Your task to perform on an android device: toggle location history Image 0: 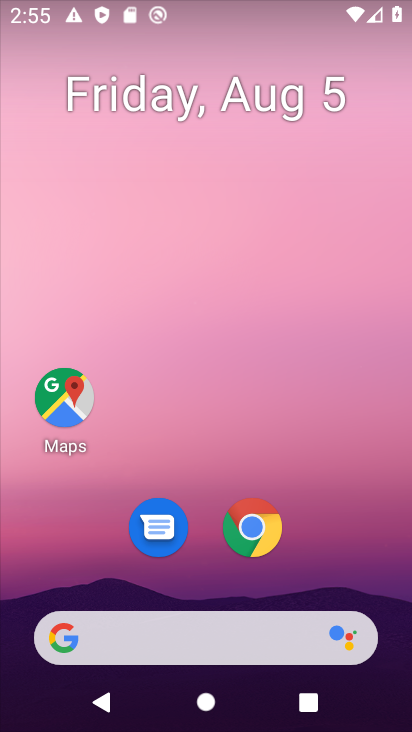
Step 0: drag from (207, 607) to (190, 119)
Your task to perform on an android device: toggle location history Image 1: 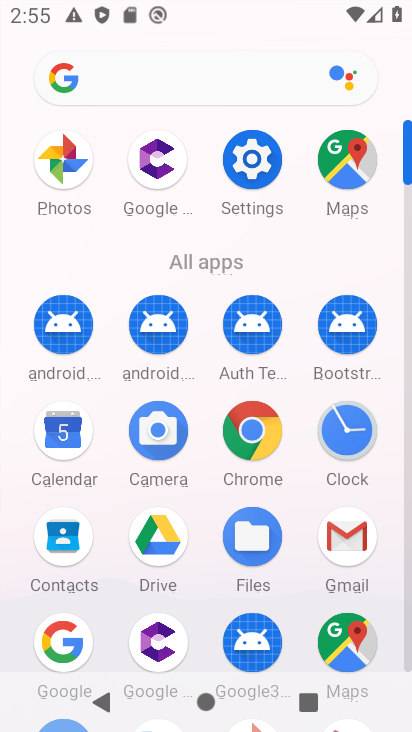
Step 1: click (242, 152)
Your task to perform on an android device: toggle location history Image 2: 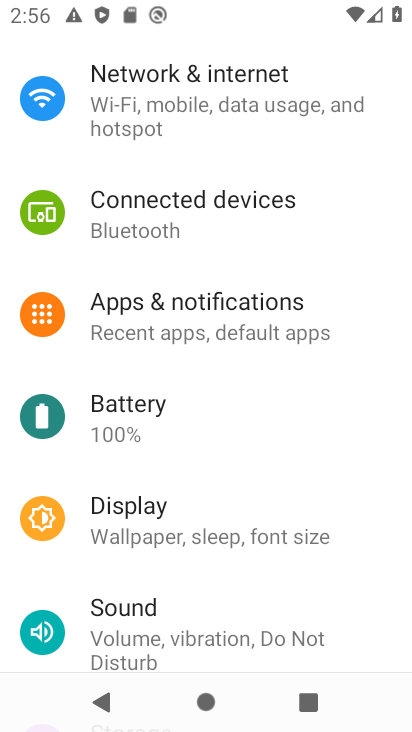
Step 2: drag from (155, 519) to (122, 196)
Your task to perform on an android device: toggle location history Image 3: 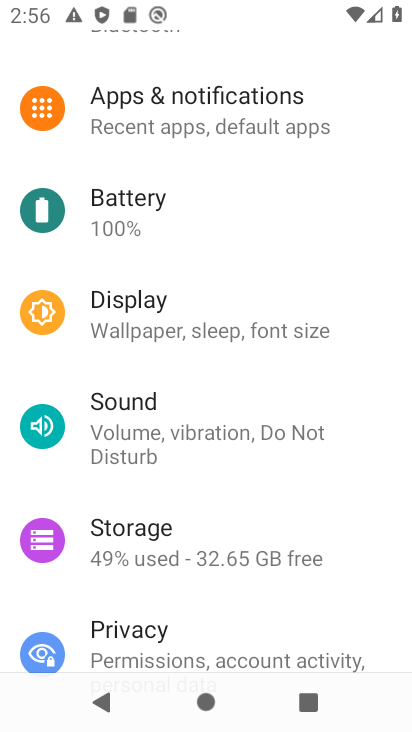
Step 3: drag from (179, 579) to (173, 380)
Your task to perform on an android device: toggle location history Image 4: 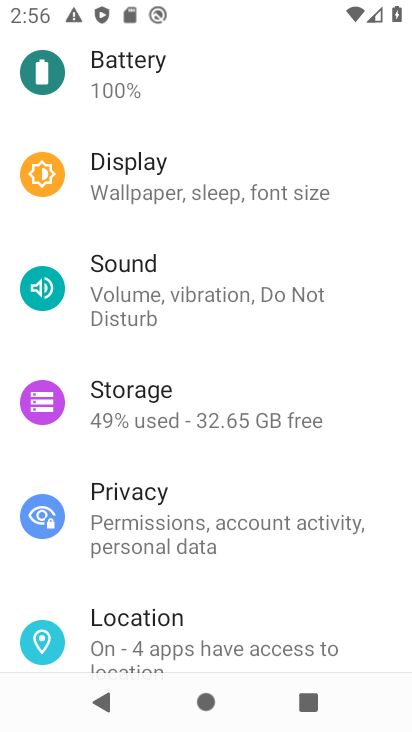
Step 4: click (161, 614)
Your task to perform on an android device: toggle location history Image 5: 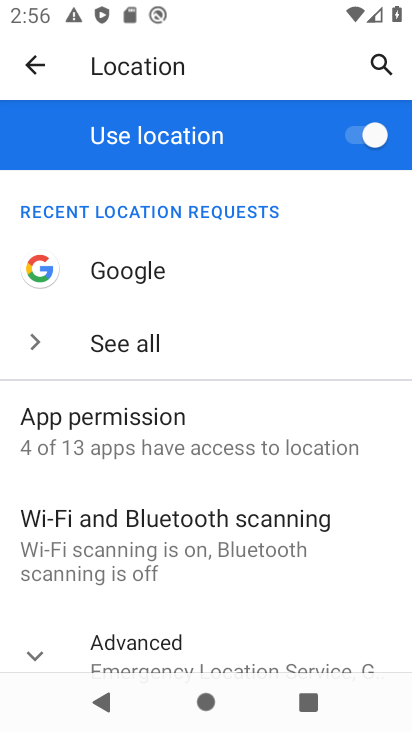
Step 5: drag from (188, 545) to (161, 360)
Your task to perform on an android device: toggle location history Image 6: 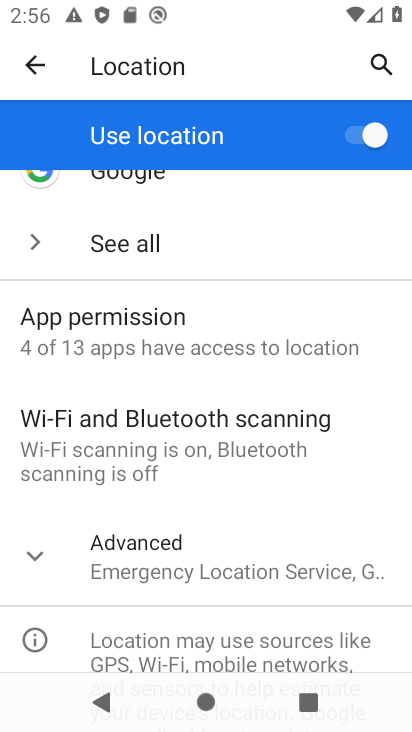
Step 6: drag from (167, 538) to (124, 301)
Your task to perform on an android device: toggle location history Image 7: 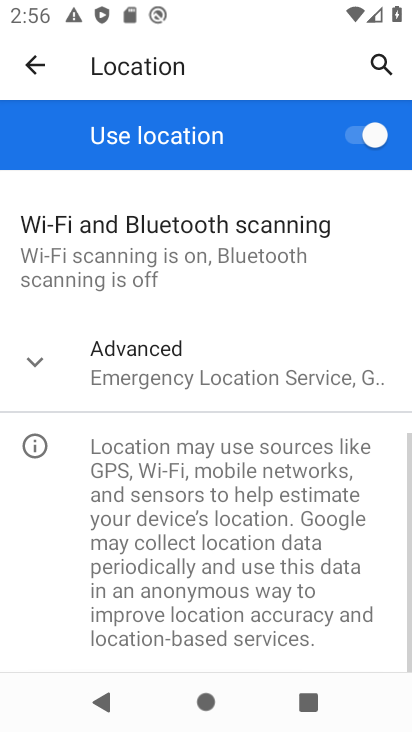
Step 7: click (128, 404)
Your task to perform on an android device: toggle location history Image 8: 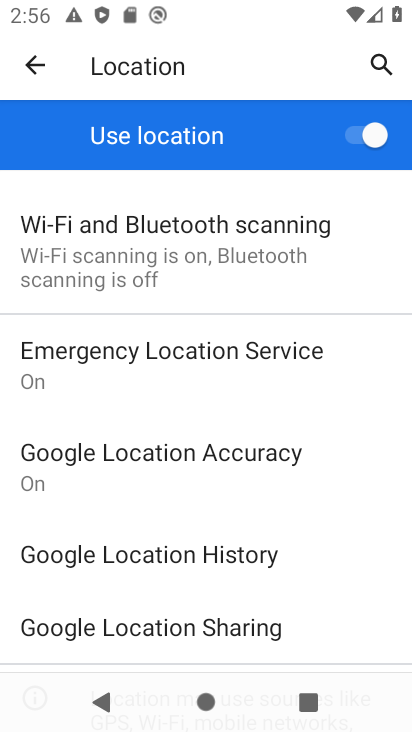
Step 8: click (168, 558)
Your task to perform on an android device: toggle location history Image 9: 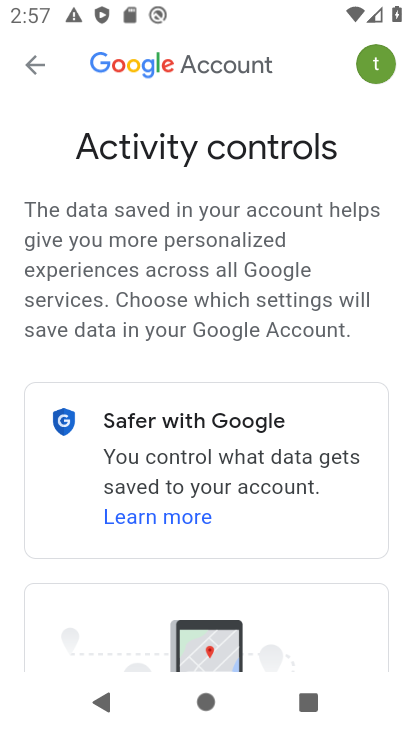
Step 9: drag from (212, 589) to (213, 315)
Your task to perform on an android device: toggle location history Image 10: 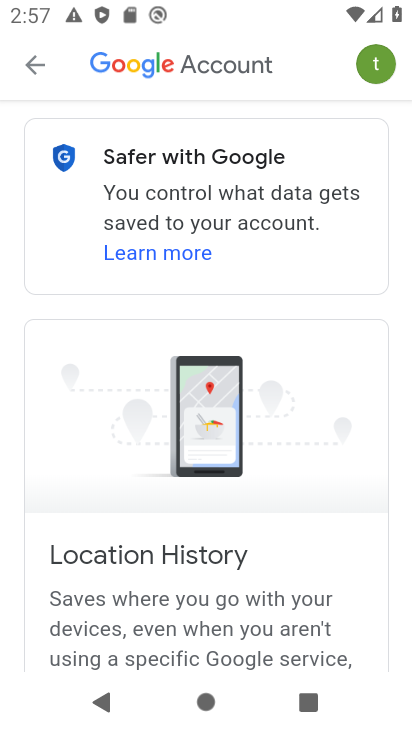
Step 10: drag from (278, 620) to (345, 252)
Your task to perform on an android device: toggle location history Image 11: 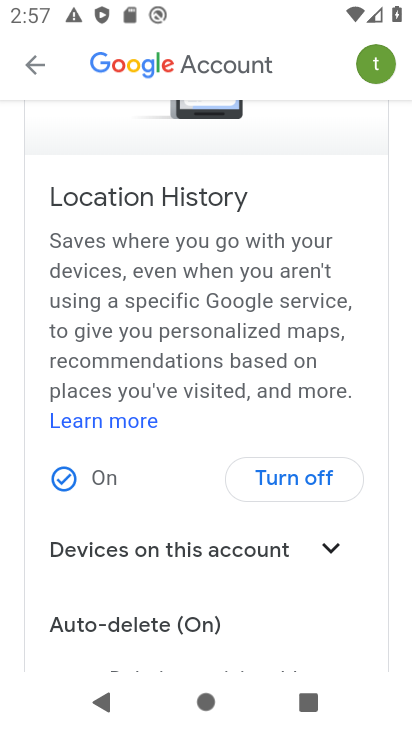
Step 11: click (291, 480)
Your task to perform on an android device: toggle location history Image 12: 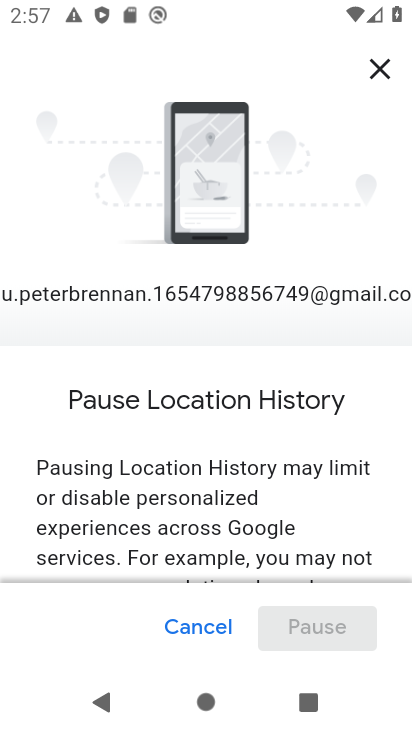
Step 12: drag from (262, 507) to (238, 295)
Your task to perform on an android device: toggle location history Image 13: 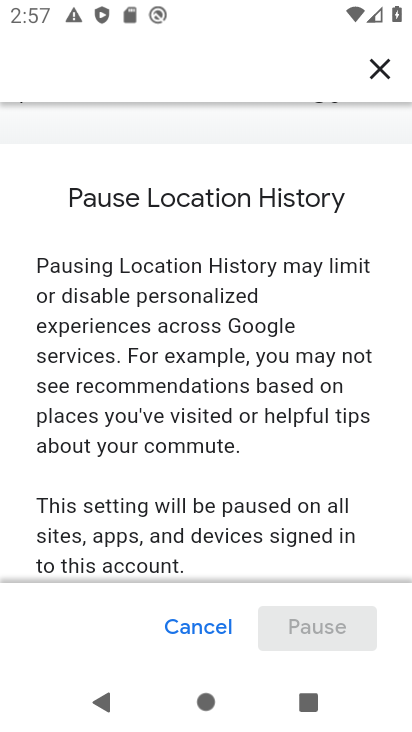
Step 13: drag from (313, 543) to (336, 227)
Your task to perform on an android device: toggle location history Image 14: 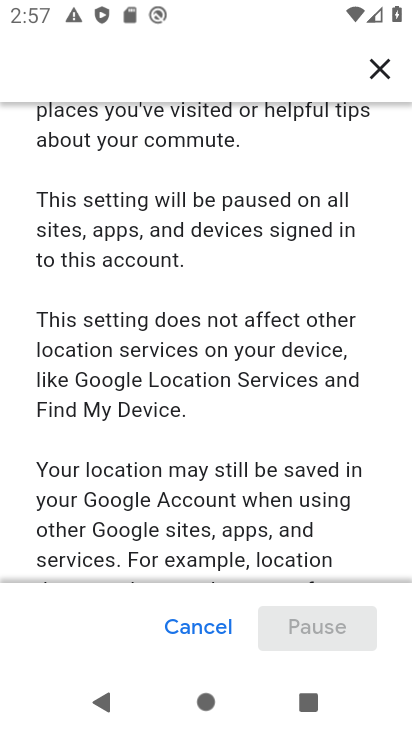
Step 14: drag from (317, 454) to (315, 144)
Your task to perform on an android device: toggle location history Image 15: 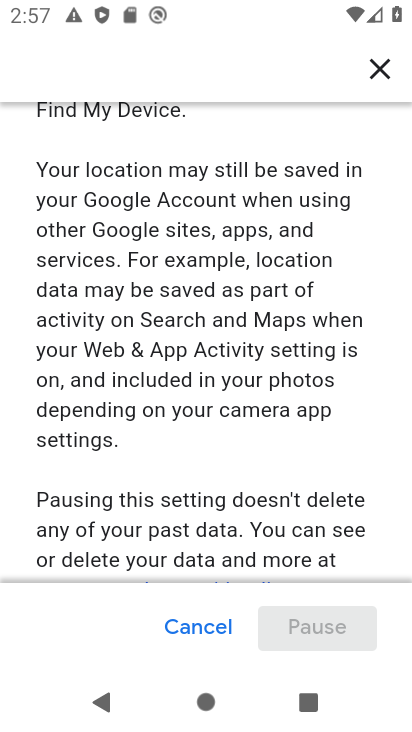
Step 15: drag from (268, 530) to (273, 208)
Your task to perform on an android device: toggle location history Image 16: 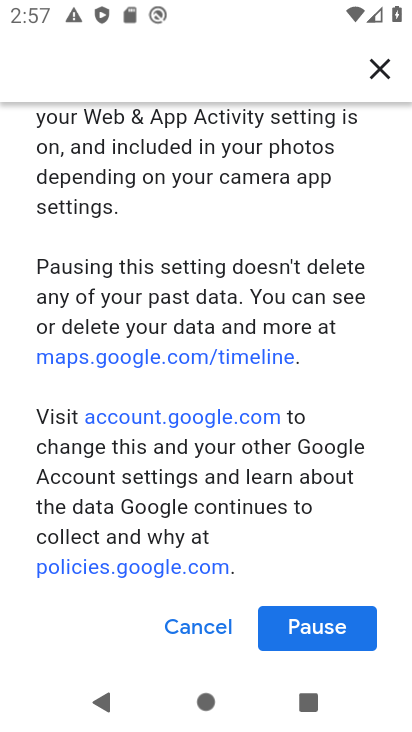
Step 16: click (338, 628)
Your task to perform on an android device: toggle location history Image 17: 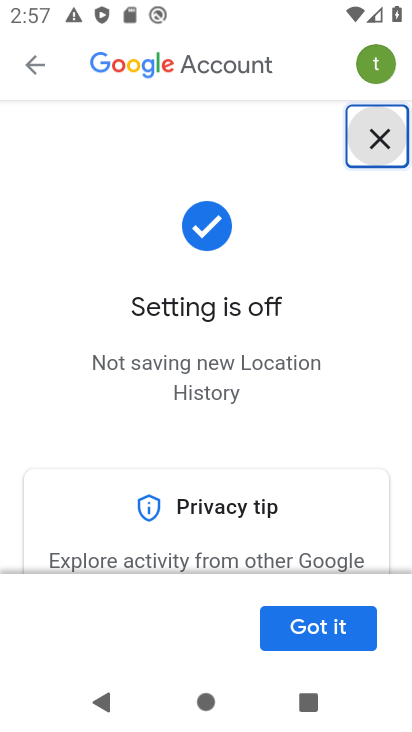
Step 17: click (300, 633)
Your task to perform on an android device: toggle location history Image 18: 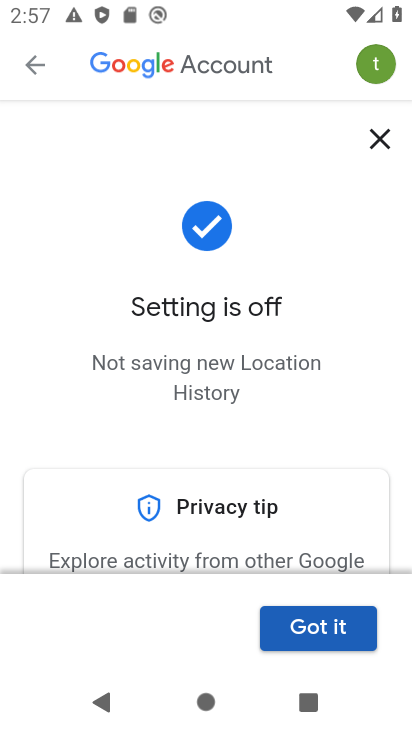
Step 18: task complete